Your task to perform on an android device: Open Google Chrome Image 0: 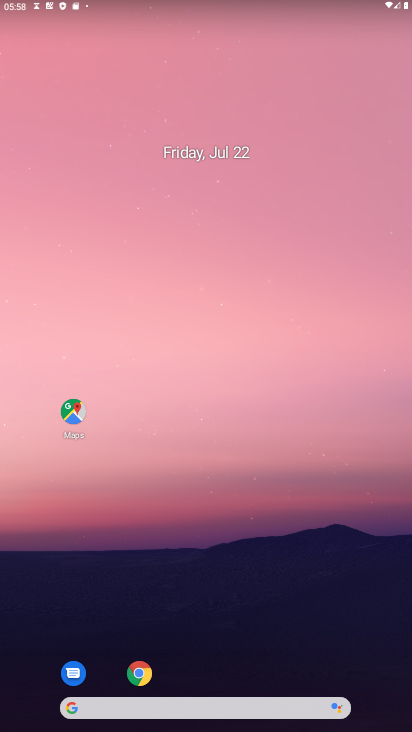
Step 0: drag from (202, 663) to (254, 80)
Your task to perform on an android device: Open Google Chrome Image 1: 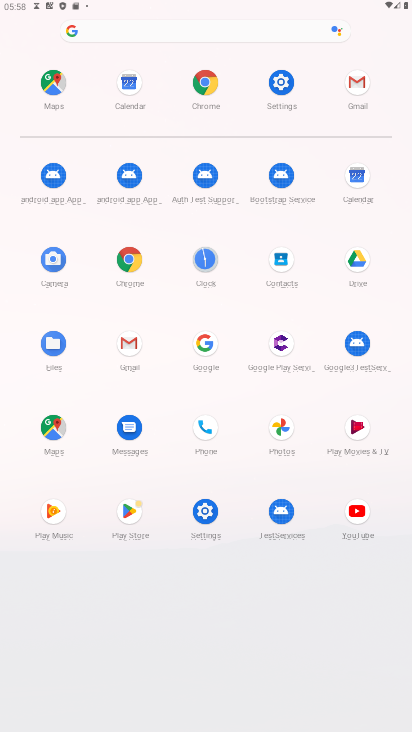
Step 1: click (211, 80)
Your task to perform on an android device: Open Google Chrome Image 2: 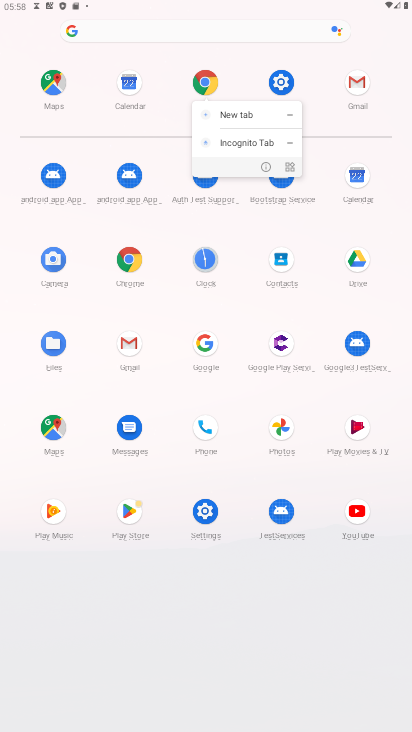
Step 2: click (211, 80)
Your task to perform on an android device: Open Google Chrome Image 3: 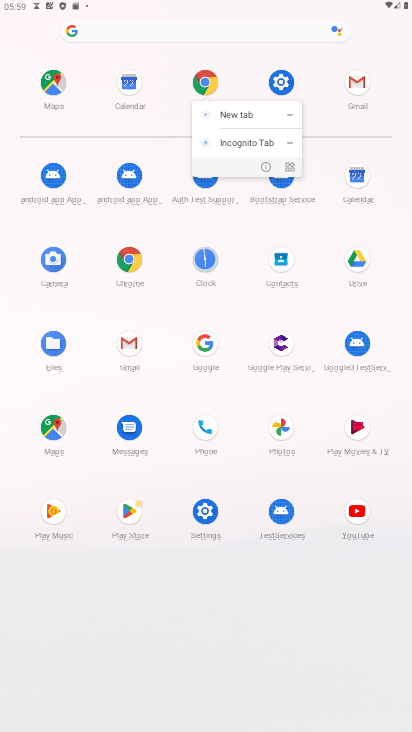
Step 3: click (220, 57)
Your task to perform on an android device: Open Google Chrome Image 4: 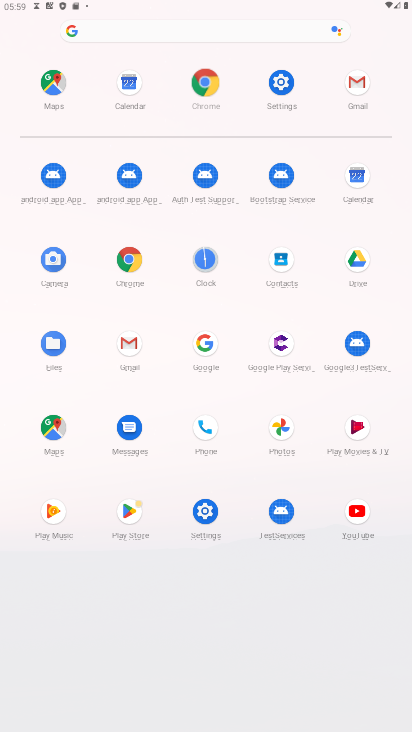
Step 4: click (204, 75)
Your task to perform on an android device: Open Google Chrome Image 5: 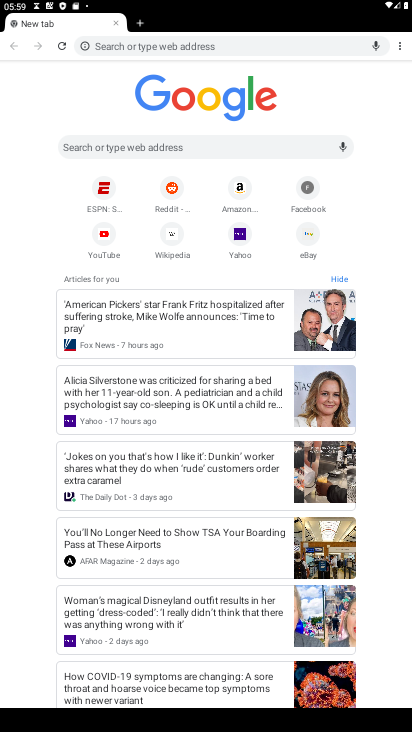
Step 5: task complete